Your task to perform on an android device: show emergency info Image 0: 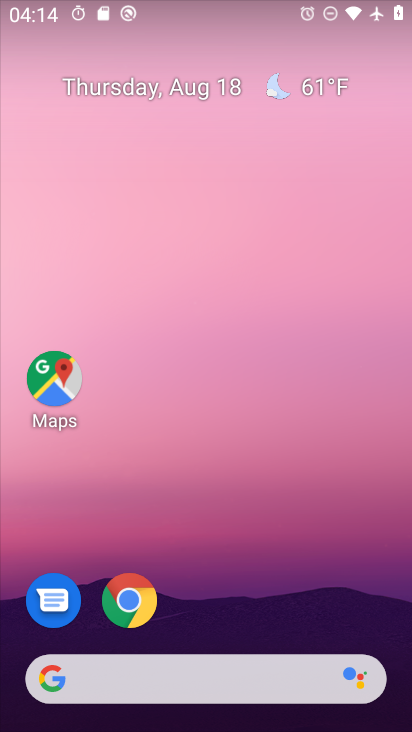
Step 0: press home button
Your task to perform on an android device: show emergency info Image 1: 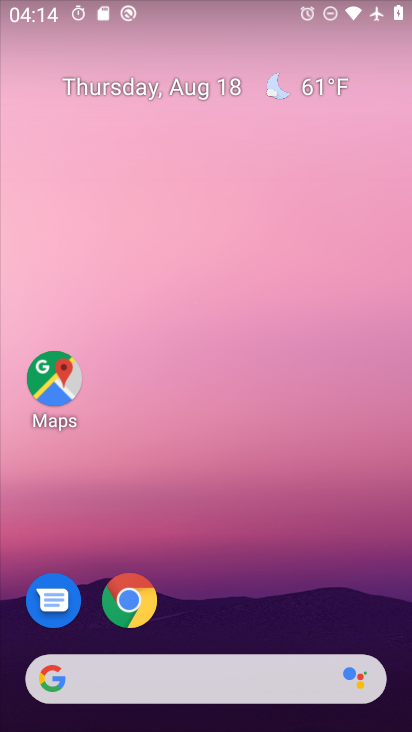
Step 1: drag from (227, 618) to (292, 111)
Your task to perform on an android device: show emergency info Image 2: 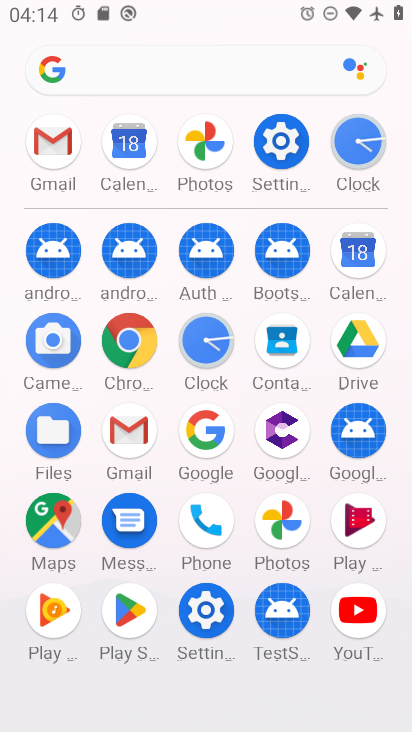
Step 2: click (272, 151)
Your task to perform on an android device: show emergency info Image 3: 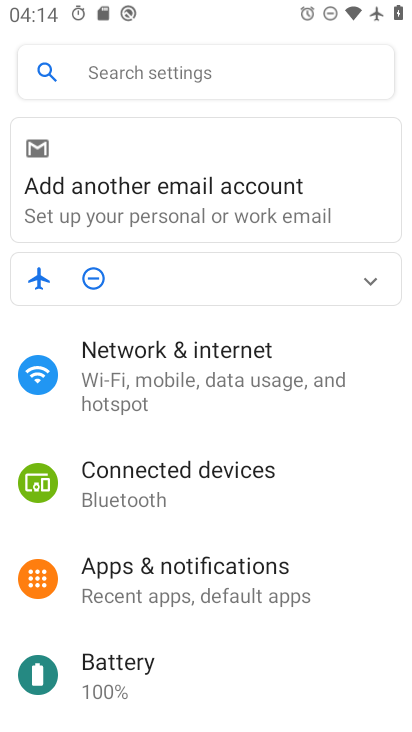
Step 3: drag from (334, 687) to (404, 18)
Your task to perform on an android device: show emergency info Image 4: 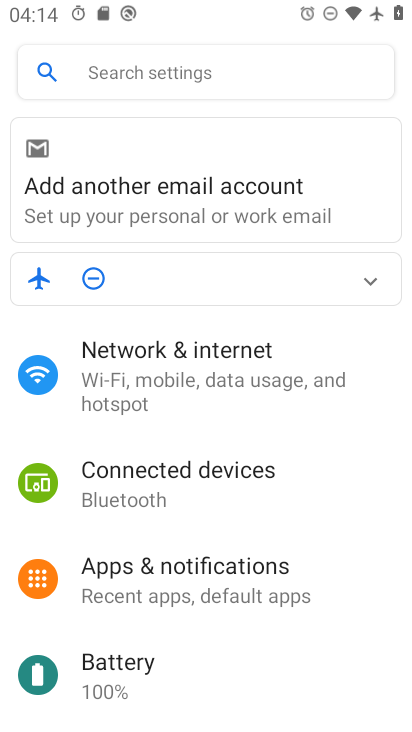
Step 4: drag from (331, 690) to (347, 195)
Your task to perform on an android device: show emergency info Image 5: 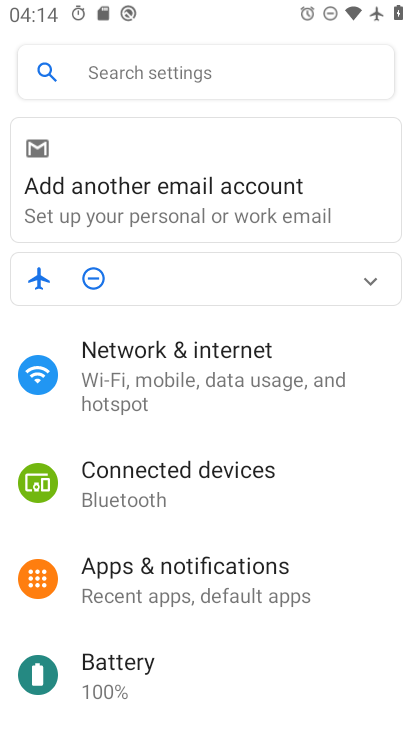
Step 5: drag from (253, 694) to (327, 82)
Your task to perform on an android device: show emergency info Image 6: 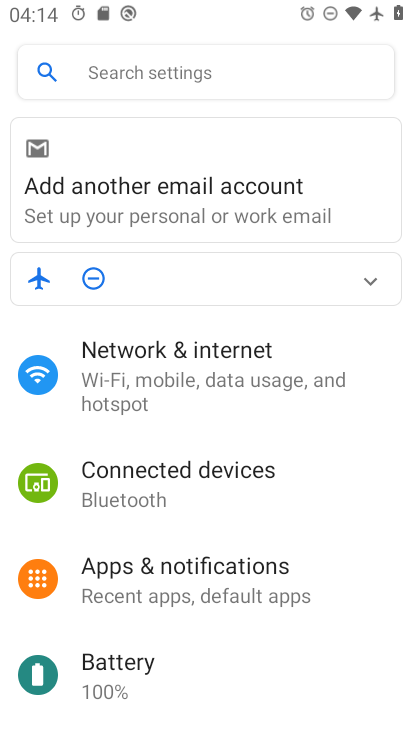
Step 6: drag from (199, 637) to (338, 92)
Your task to perform on an android device: show emergency info Image 7: 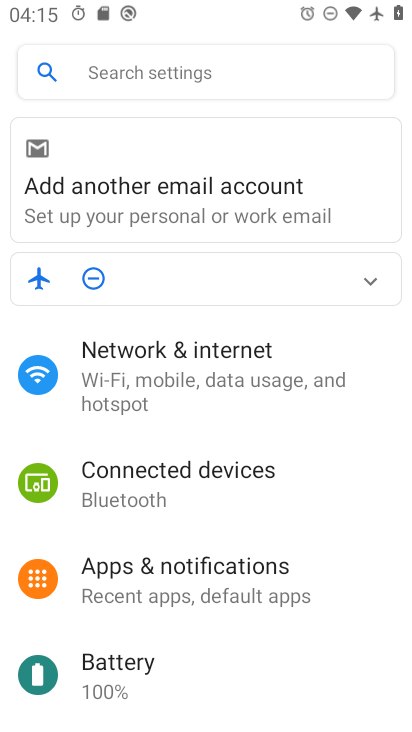
Step 7: drag from (293, 688) to (295, 31)
Your task to perform on an android device: show emergency info Image 8: 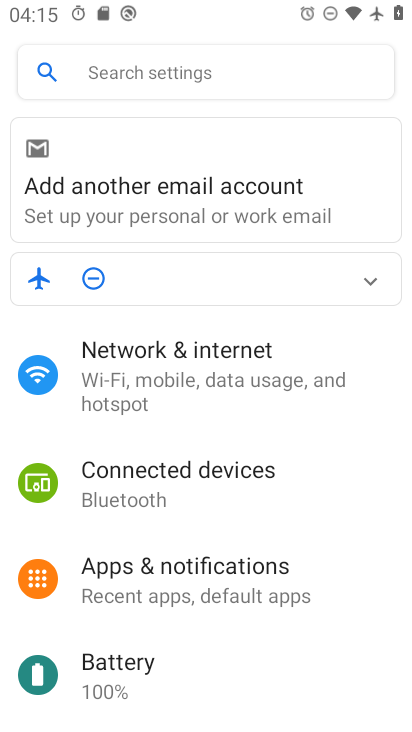
Step 8: drag from (287, 695) to (299, 0)
Your task to perform on an android device: show emergency info Image 9: 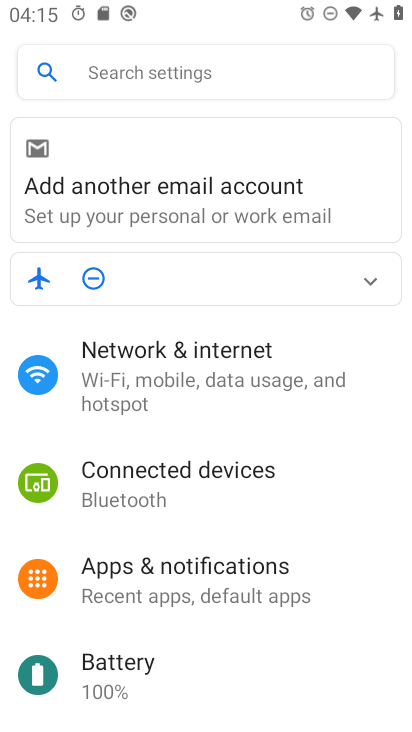
Step 9: drag from (299, 694) to (273, 0)
Your task to perform on an android device: show emergency info Image 10: 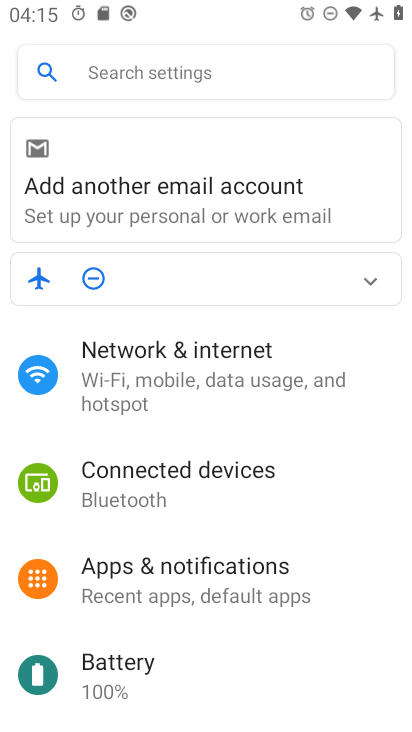
Step 10: drag from (221, 530) to (410, 7)
Your task to perform on an android device: show emergency info Image 11: 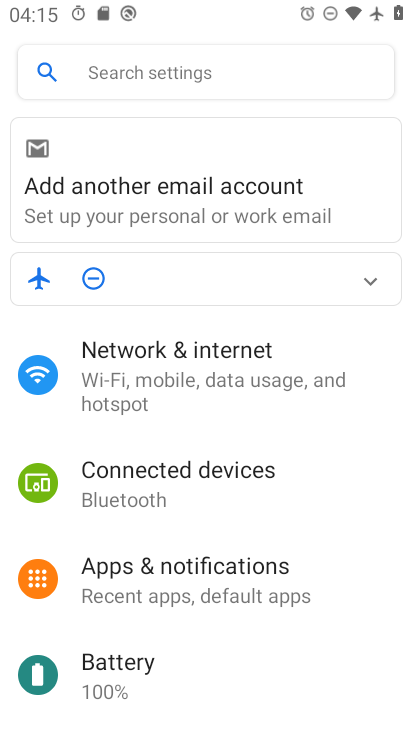
Step 11: drag from (282, 672) to (402, 150)
Your task to perform on an android device: show emergency info Image 12: 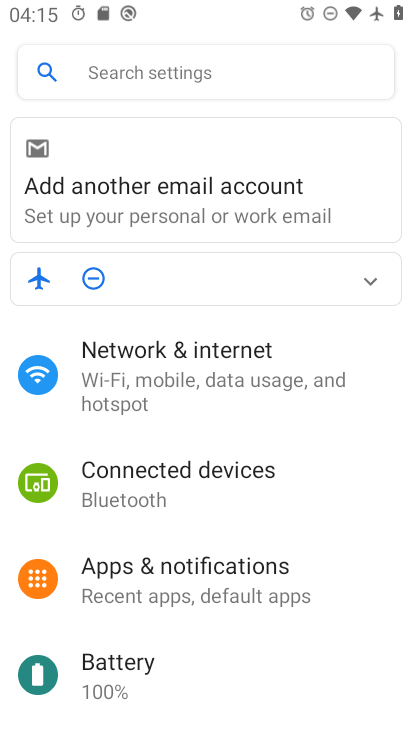
Step 12: drag from (241, 697) to (43, 75)
Your task to perform on an android device: show emergency info Image 13: 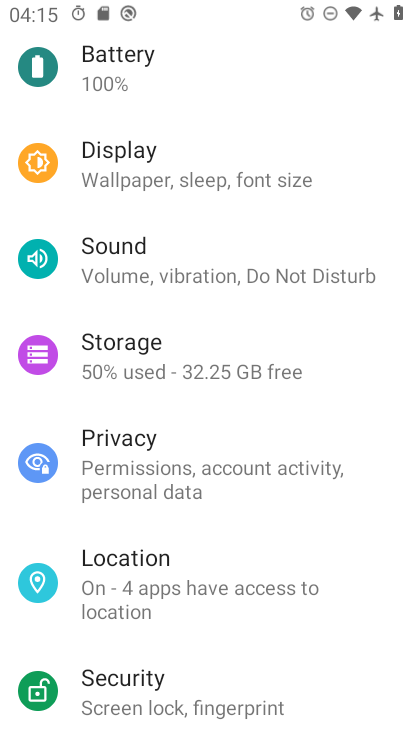
Step 13: drag from (288, 671) to (398, 22)
Your task to perform on an android device: show emergency info Image 14: 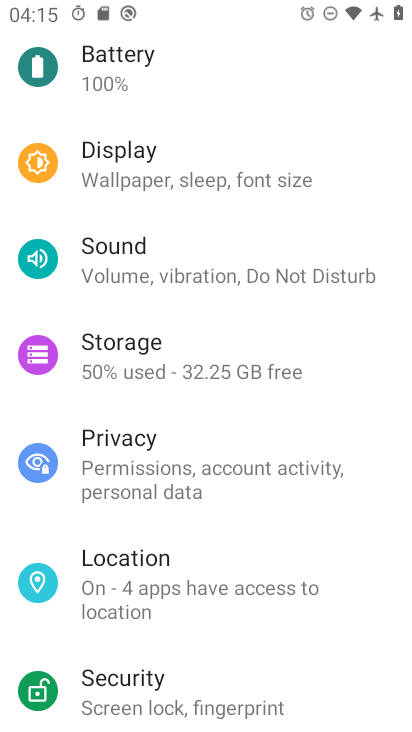
Step 14: drag from (284, 654) to (200, 392)
Your task to perform on an android device: show emergency info Image 15: 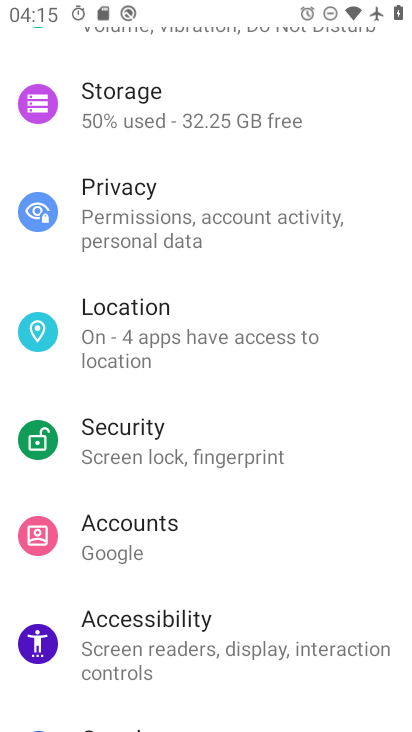
Step 15: drag from (342, 691) to (330, 172)
Your task to perform on an android device: show emergency info Image 16: 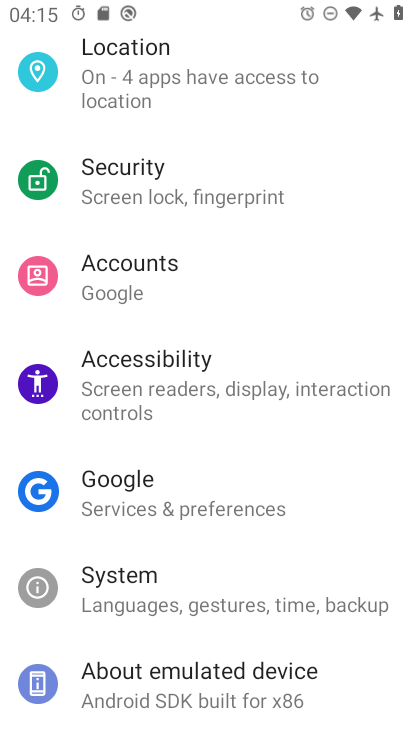
Step 16: click (203, 695)
Your task to perform on an android device: show emergency info Image 17: 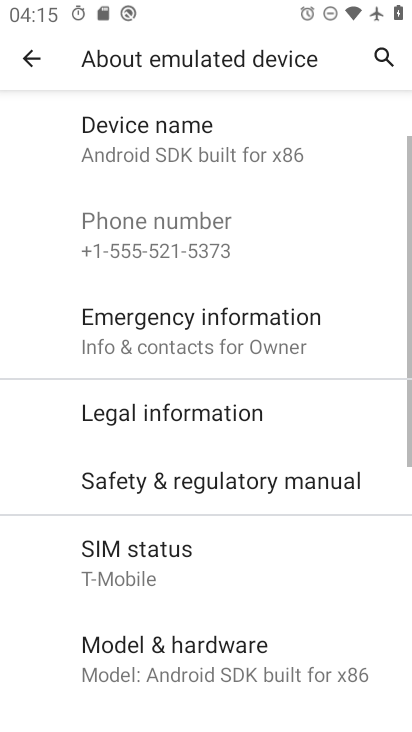
Step 17: click (217, 328)
Your task to perform on an android device: show emergency info Image 18: 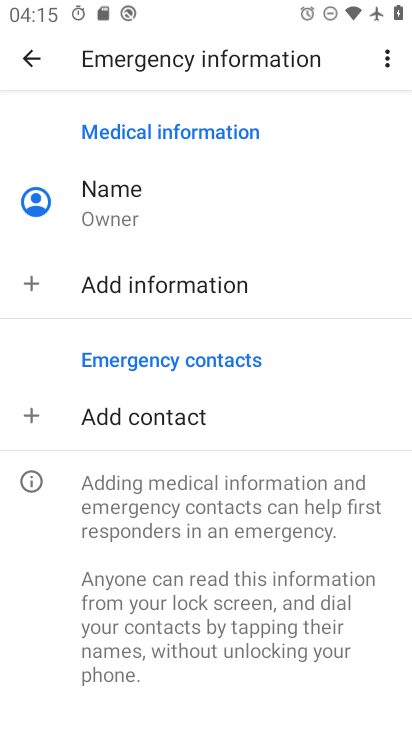
Step 18: task complete